Your task to perform on an android device: Turn on the flashlight Image 0: 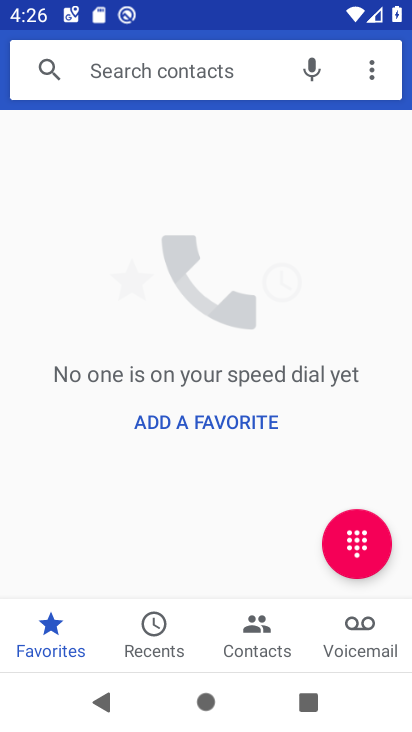
Step 0: press home button
Your task to perform on an android device: Turn on the flashlight Image 1: 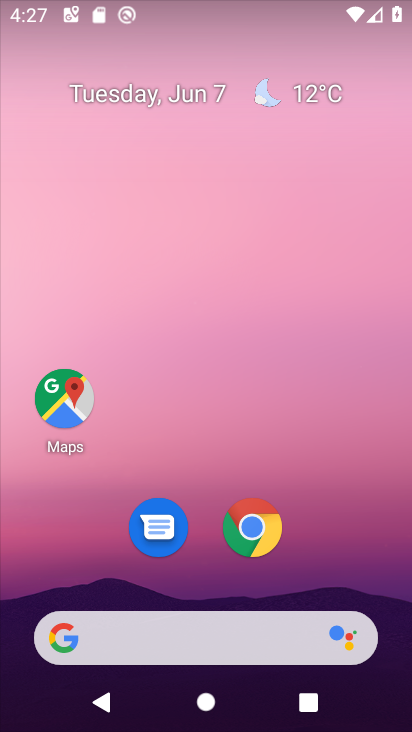
Step 1: drag from (351, 276) to (240, 353)
Your task to perform on an android device: Turn on the flashlight Image 2: 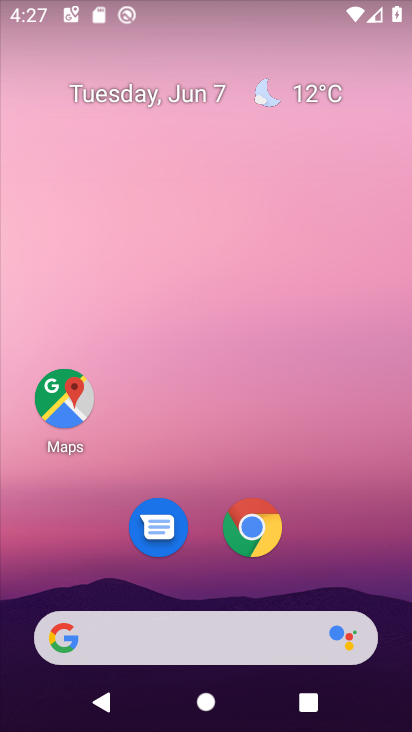
Step 2: drag from (202, 541) to (244, 219)
Your task to perform on an android device: Turn on the flashlight Image 3: 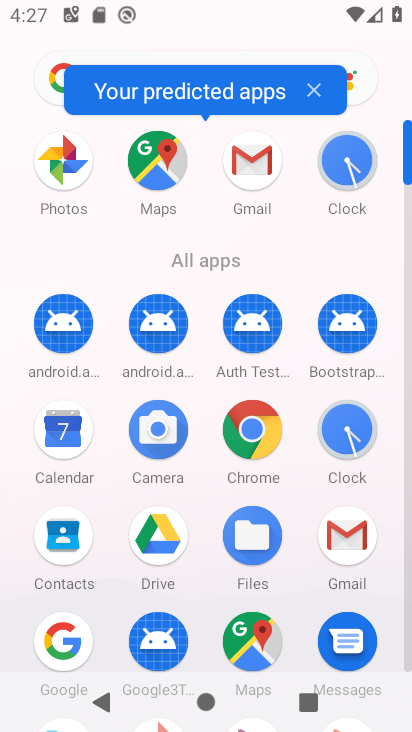
Step 3: drag from (284, 361) to (316, 115)
Your task to perform on an android device: Turn on the flashlight Image 4: 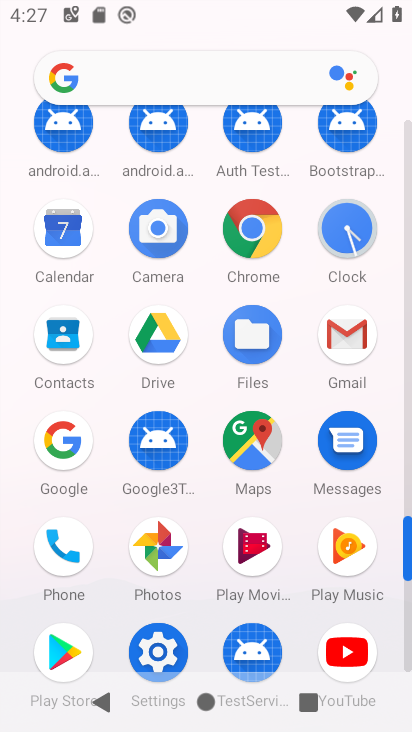
Step 4: click (138, 643)
Your task to perform on an android device: Turn on the flashlight Image 5: 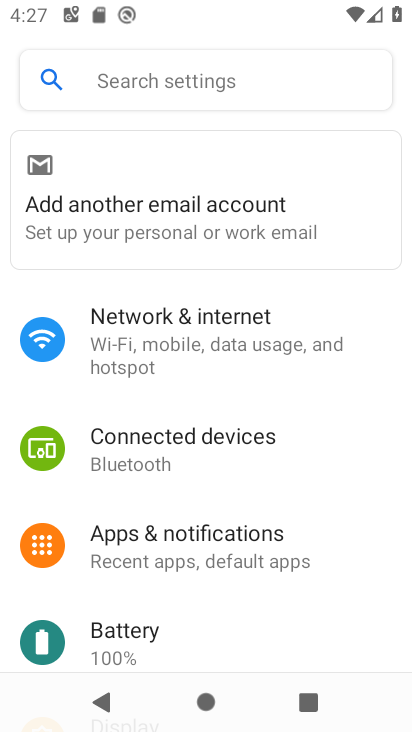
Step 5: click (284, 75)
Your task to perform on an android device: Turn on the flashlight Image 6: 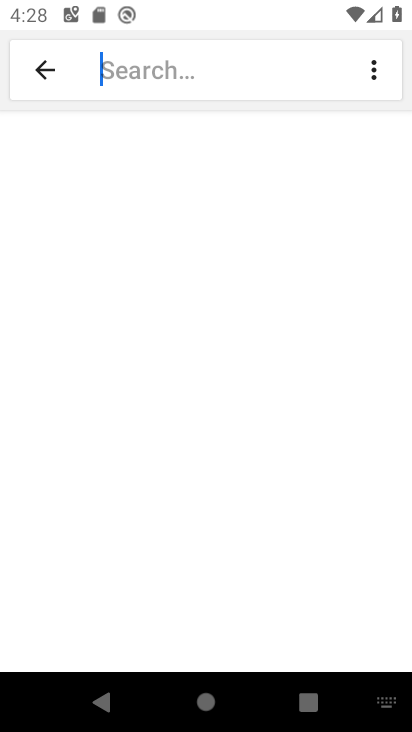
Step 6: type "flashlight"
Your task to perform on an android device: Turn on the flashlight Image 7: 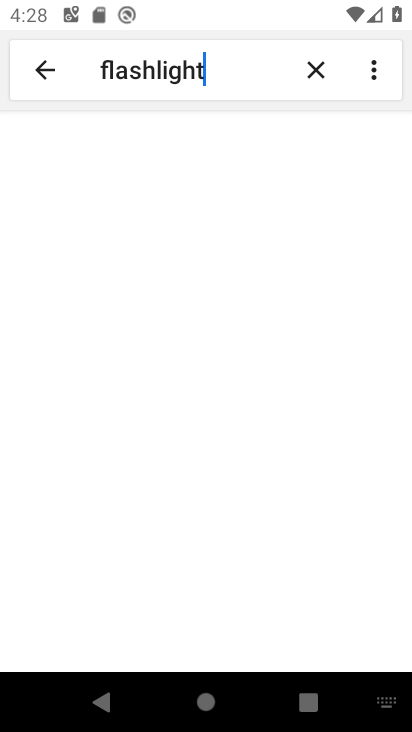
Step 7: click (127, 162)
Your task to perform on an android device: Turn on the flashlight Image 8: 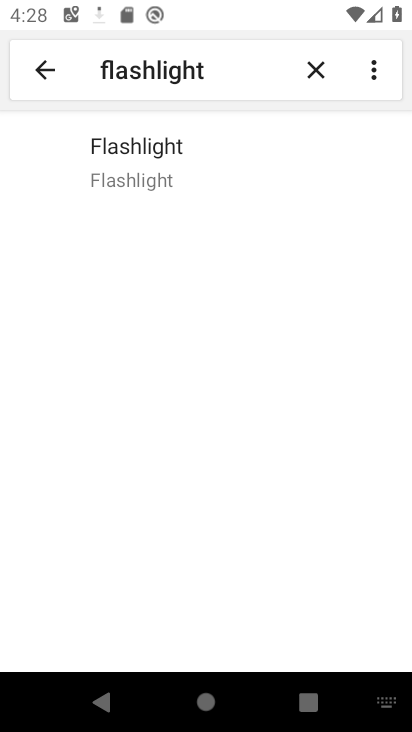
Step 8: click (114, 159)
Your task to perform on an android device: Turn on the flashlight Image 9: 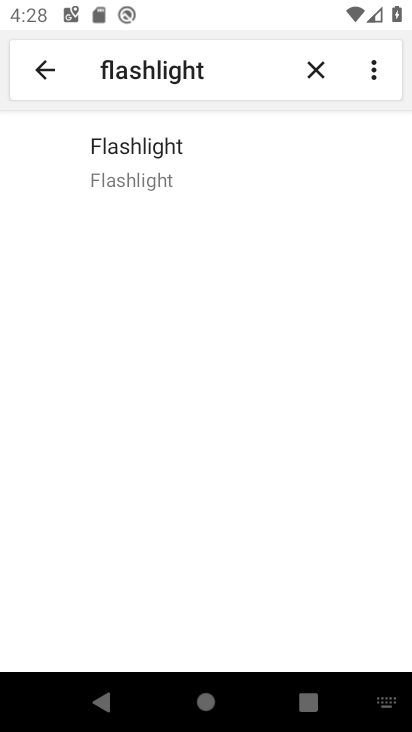
Step 9: task complete